Your task to perform on an android device: allow notifications from all sites in the chrome app Image 0: 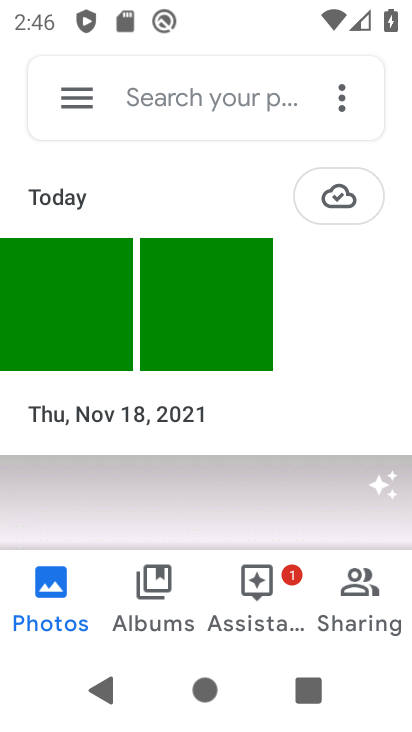
Step 0: press home button
Your task to perform on an android device: allow notifications from all sites in the chrome app Image 1: 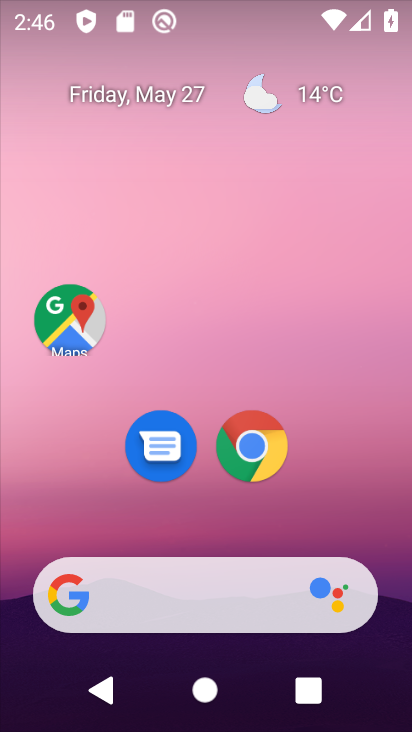
Step 1: click (258, 451)
Your task to perform on an android device: allow notifications from all sites in the chrome app Image 2: 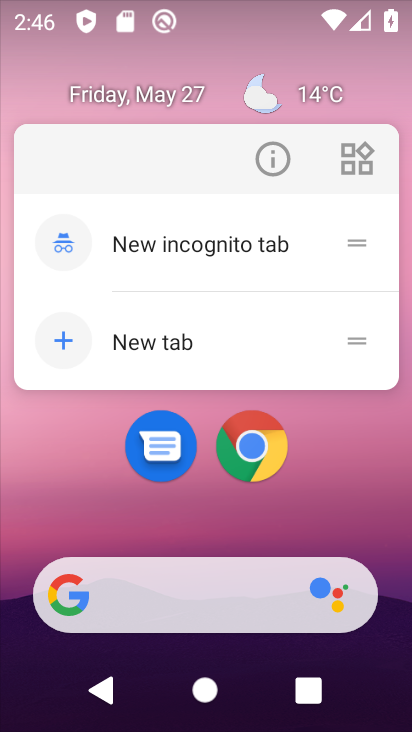
Step 2: click (251, 460)
Your task to perform on an android device: allow notifications from all sites in the chrome app Image 3: 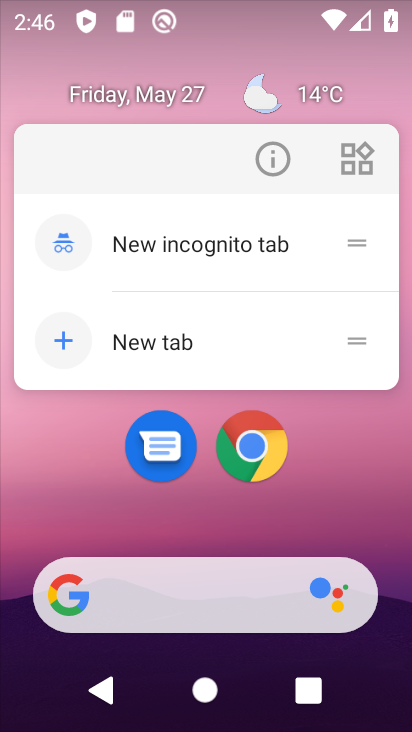
Step 3: click (247, 450)
Your task to perform on an android device: allow notifications from all sites in the chrome app Image 4: 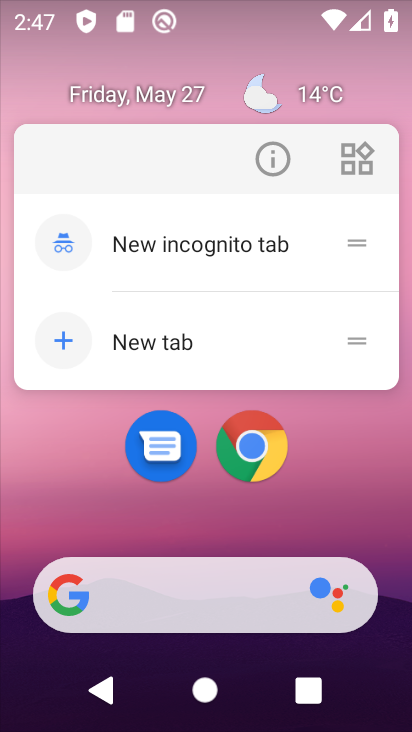
Step 4: click (247, 450)
Your task to perform on an android device: allow notifications from all sites in the chrome app Image 5: 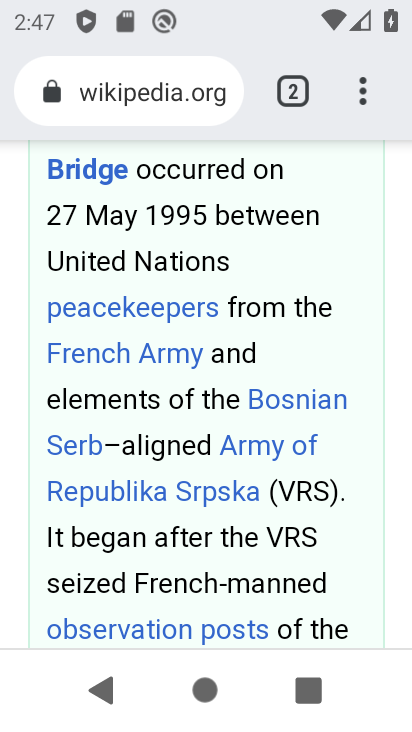
Step 5: drag from (362, 95) to (186, 470)
Your task to perform on an android device: allow notifications from all sites in the chrome app Image 6: 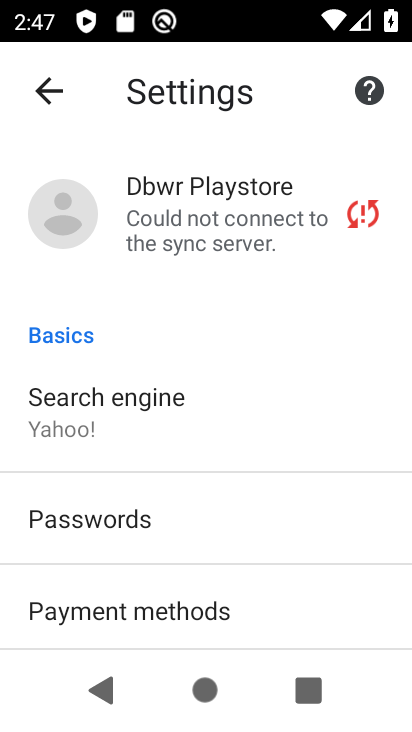
Step 6: drag from (256, 609) to (352, 171)
Your task to perform on an android device: allow notifications from all sites in the chrome app Image 7: 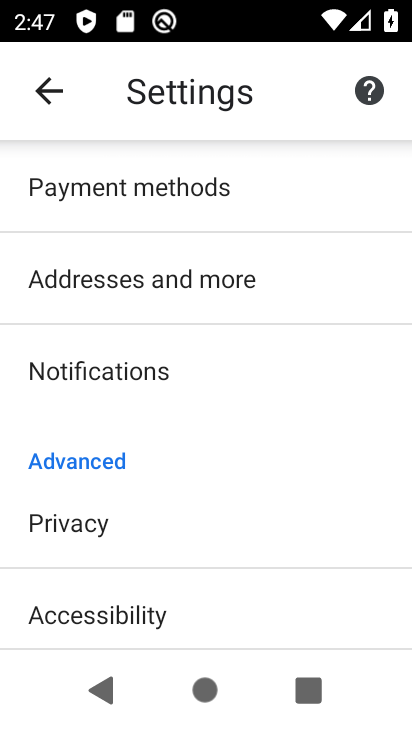
Step 7: drag from (197, 557) to (335, 112)
Your task to perform on an android device: allow notifications from all sites in the chrome app Image 8: 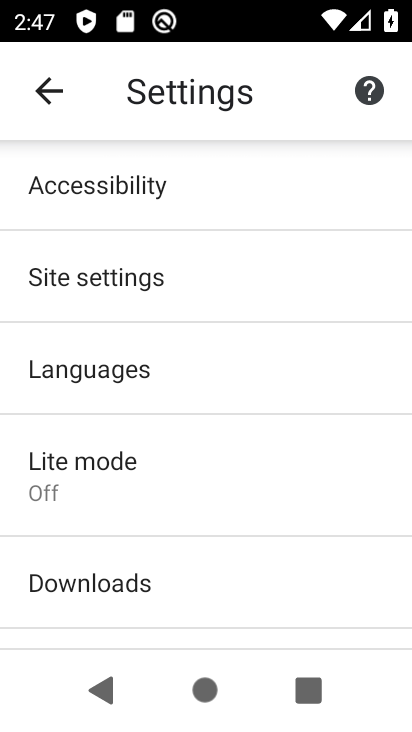
Step 8: click (149, 274)
Your task to perform on an android device: allow notifications from all sites in the chrome app Image 9: 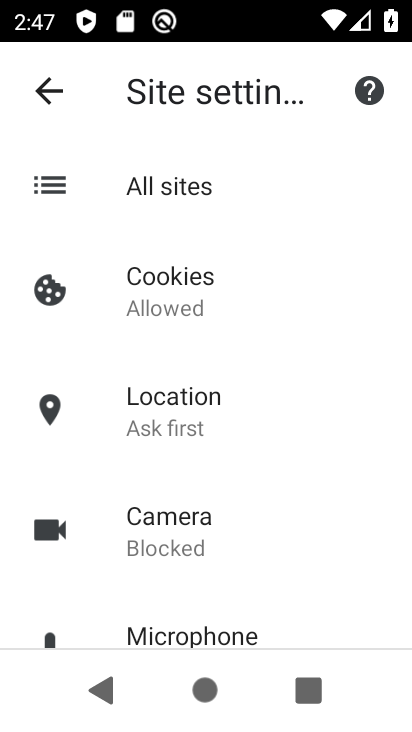
Step 9: drag from (219, 569) to (317, 190)
Your task to perform on an android device: allow notifications from all sites in the chrome app Image 10: 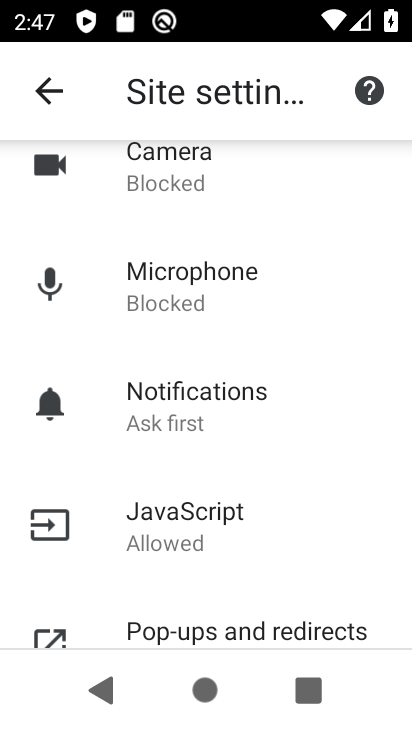
Step 10: click (170, 408)
Your task to perform on an android device: allow notifications from all sites in the chrome app Image 11: 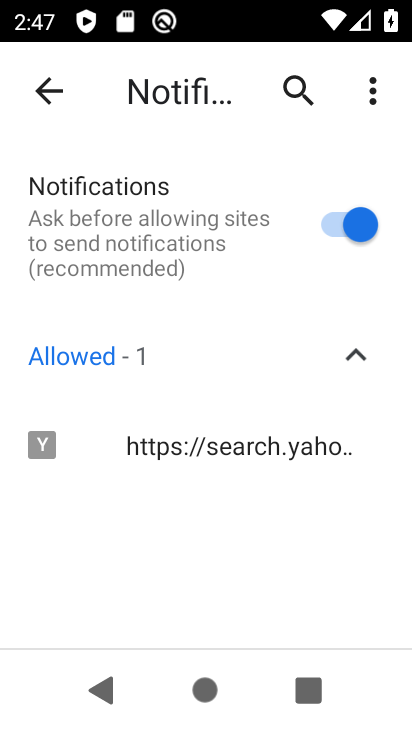
Step 11: task complete